Your task to perform on an android device: Go to display settings Image 0: 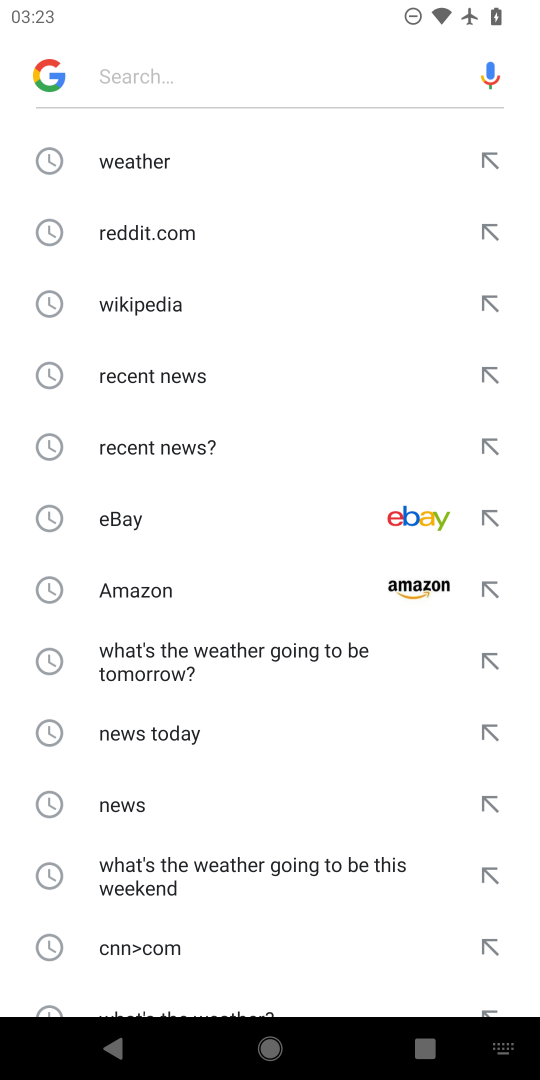
Step 0: press home button
Your task to perform on an android device: Go to display settings Image 1: 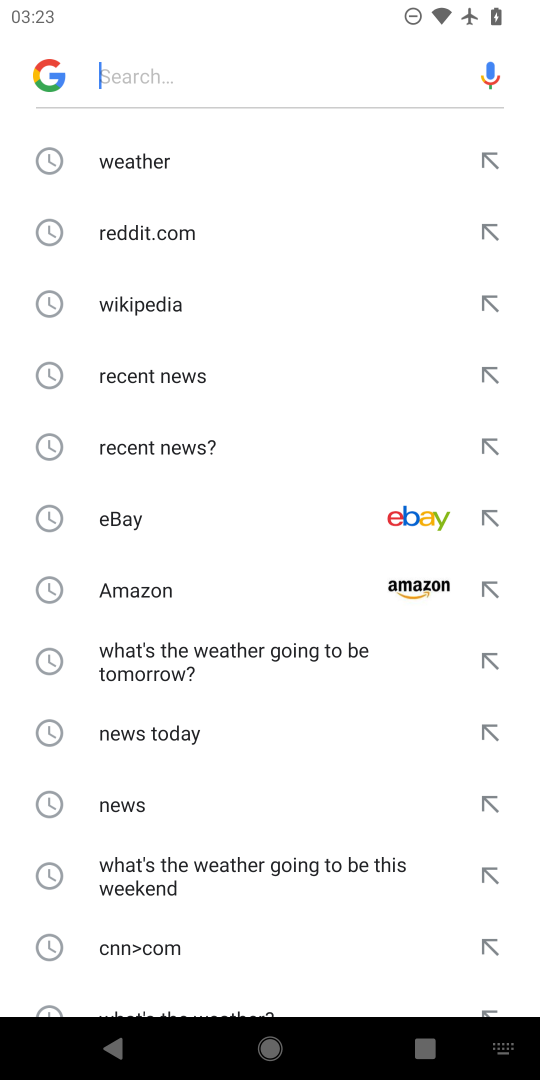
Step 1: press home button
Your task to perform on an android device: Go to display settings Image 2: 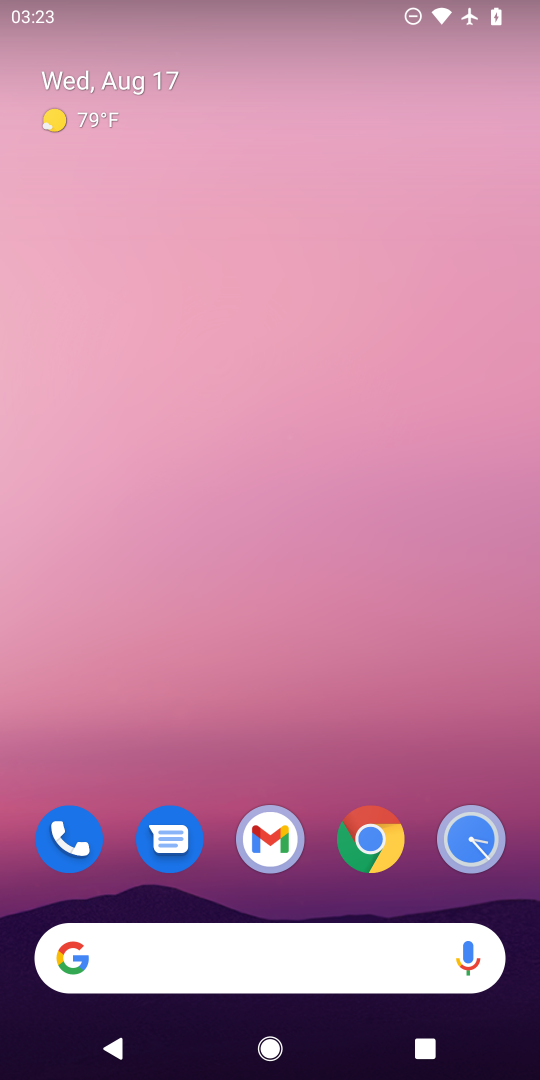
Step 2: drag from (319, 871) to (190, 119)
Your task to perform on an android device: Go to display settings Image 3: 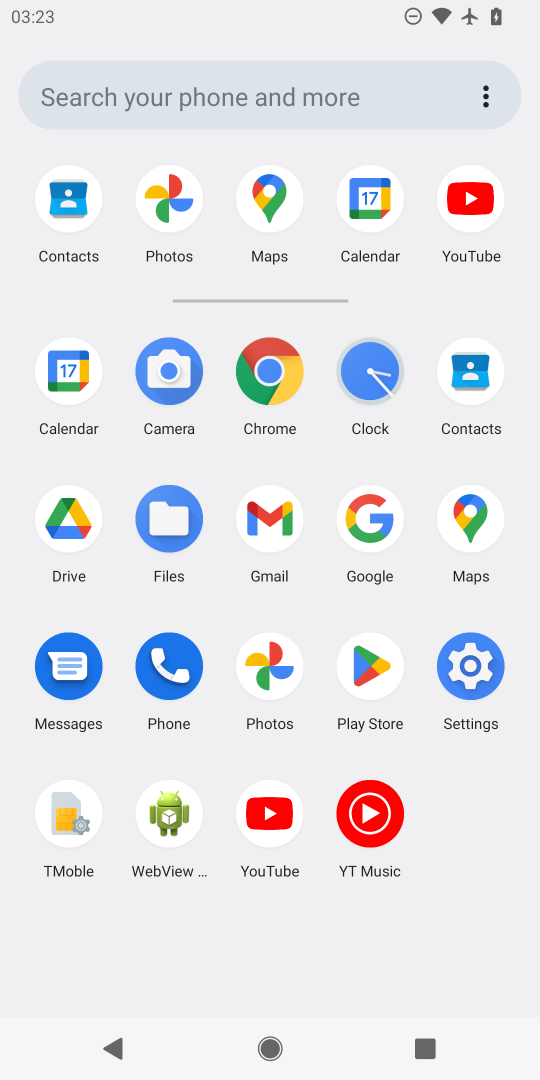
Step 3: click (474, 679)
Your task to perform on an android device: Go to display settings Image 4: 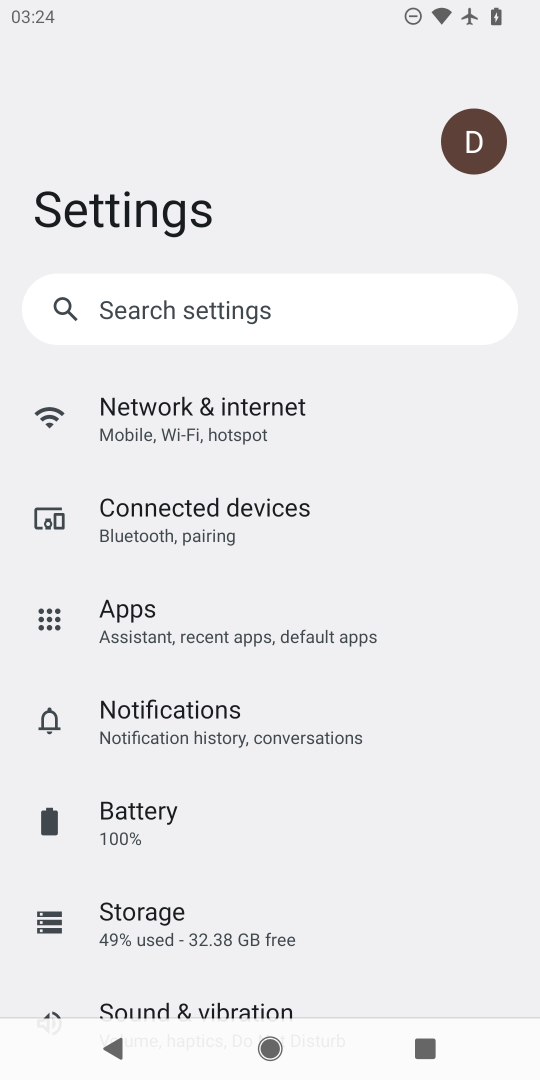
Step 4: drag from (148, 929) to (175, 450)
Your task to perform on an android device: Go to display settings Image 5: 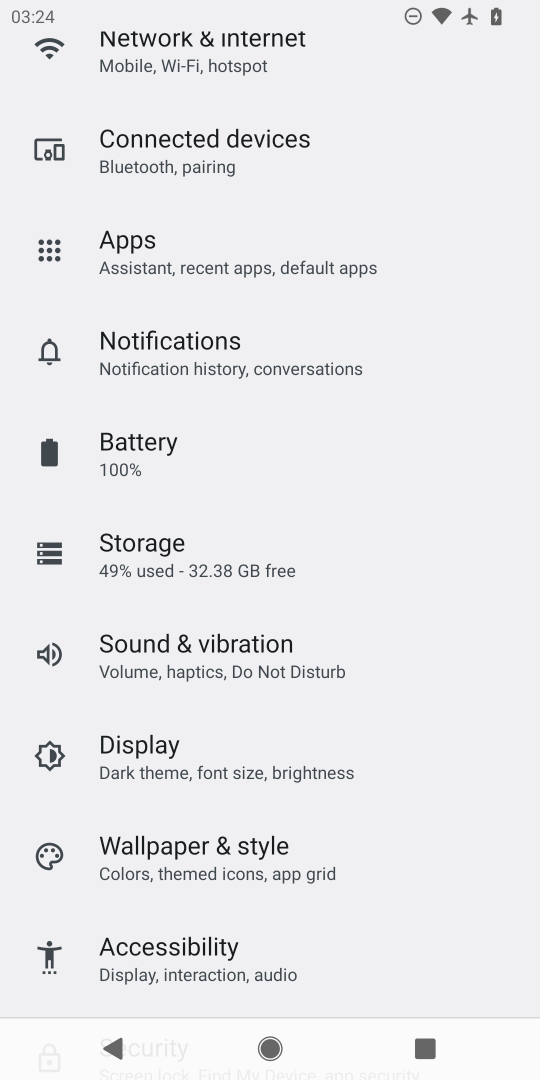
Step 5: click (138, 754)
Your task to perform on an android device: Go to display settings Image 6: 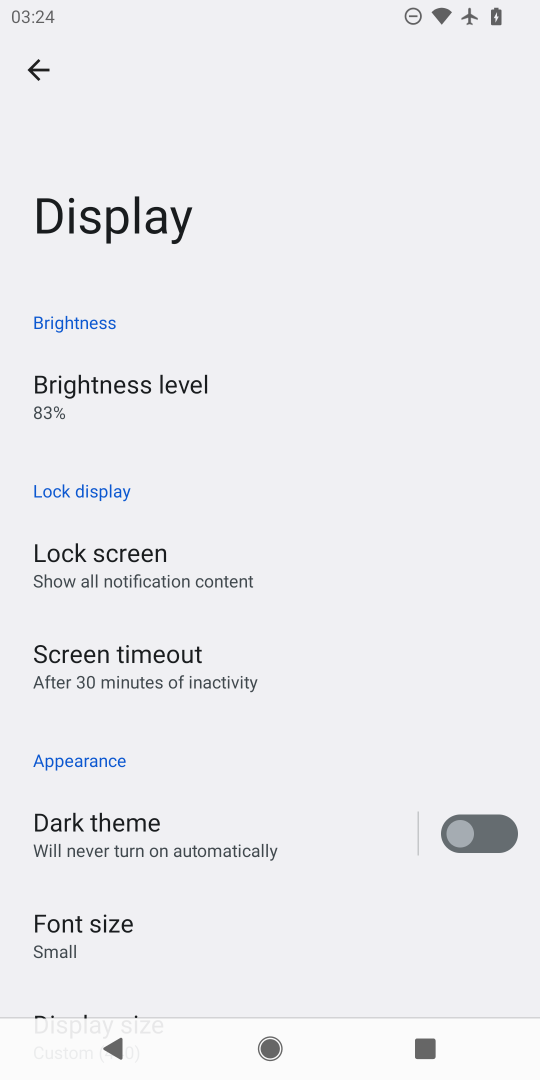
Step 6: task complete